Your task to perform on an android device: toggle data saver in the chrome app Image 0: 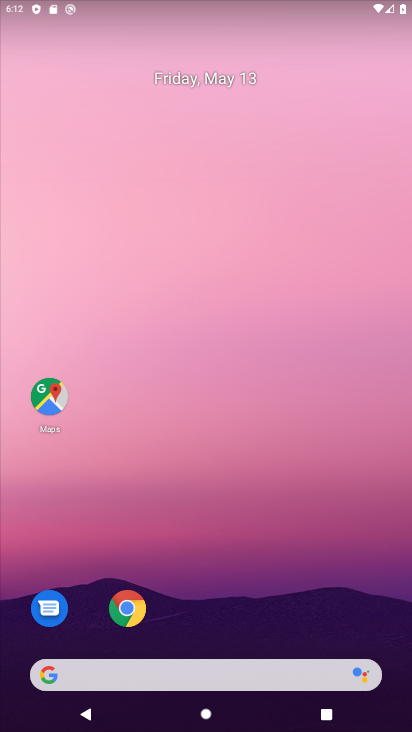
Step 0: drag from (214, 622) to (239, 12)
Your task to perform on an android device: toggle data saver in the chrome app Image 1: 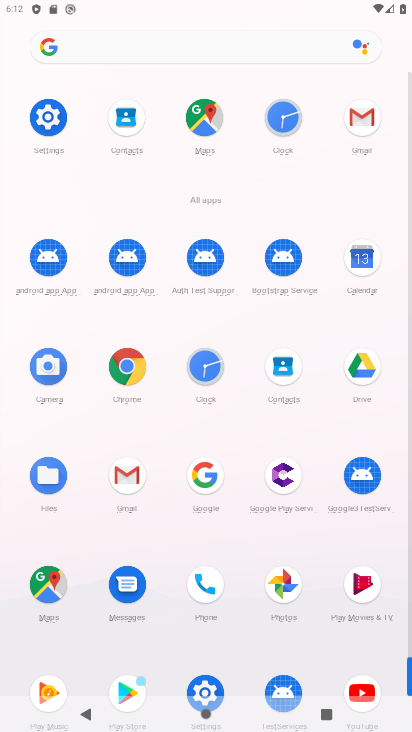
Step 1: click (122, 366)
Your task to perform on an android device: toggle data saver in the chrome app Image 2: 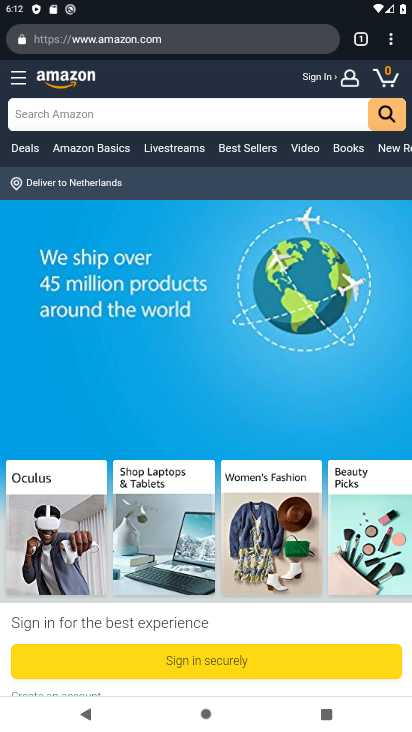
Step 2: click (395, 40)
Your task to perform on an android device: toggle data saver in the chrome app Image 3: 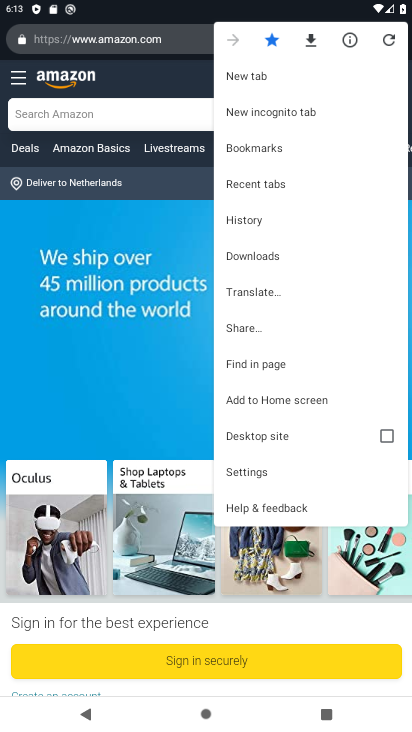
Step 3: click (246, 466)
Your task to perform on an android device: toggle data saver in the chrome app Image 4: 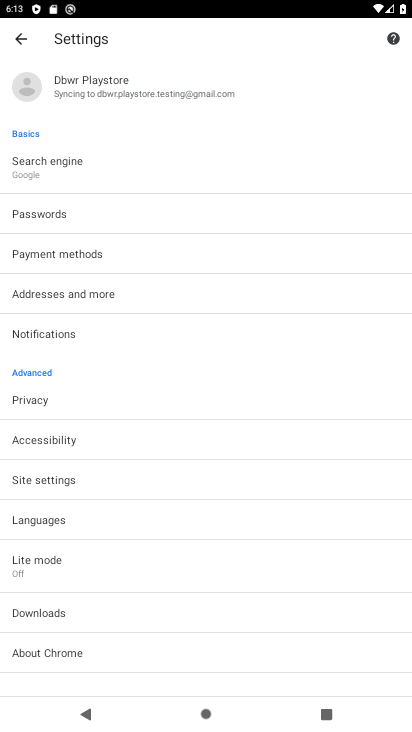
Step 4: click (55, 565)
Your task to perform on an android device: toggle data saver in the chrome app Image 5: 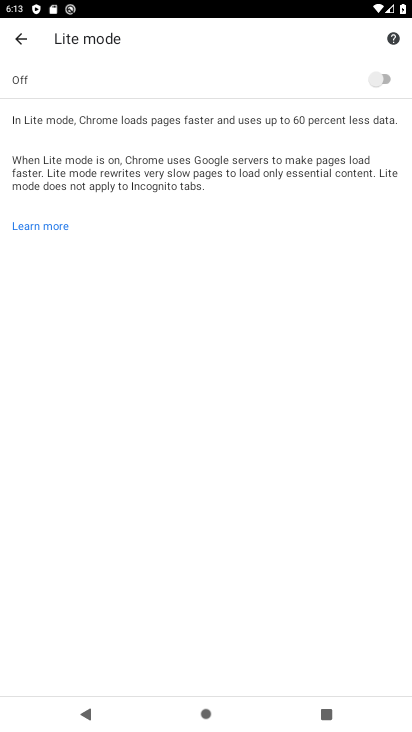
Step 5: click (370, 81)
Your task to perform on an android device: toggle data saver in the chrome app Image 6: 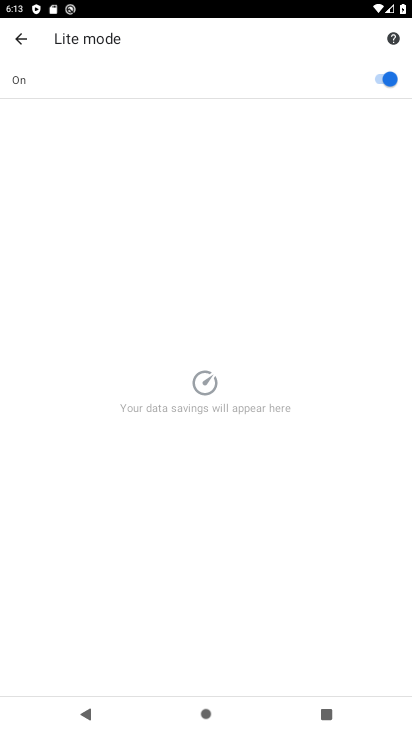
Step 6: task complete